Your task to perform on an android device: turn on wifi Image 0: 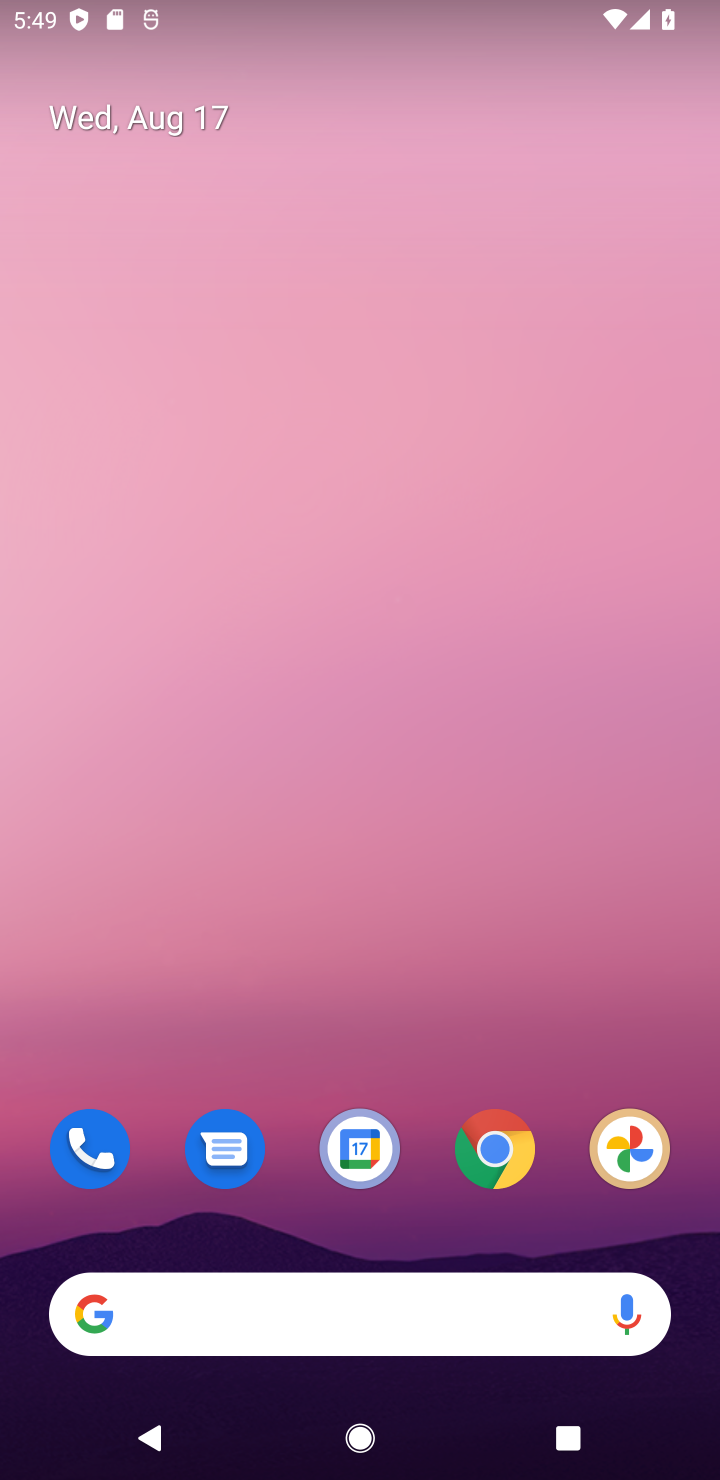
Step 0: drag from (413, 1057) to (426, 80)
Your task to perform on an android device: turn on wifi Image 1: 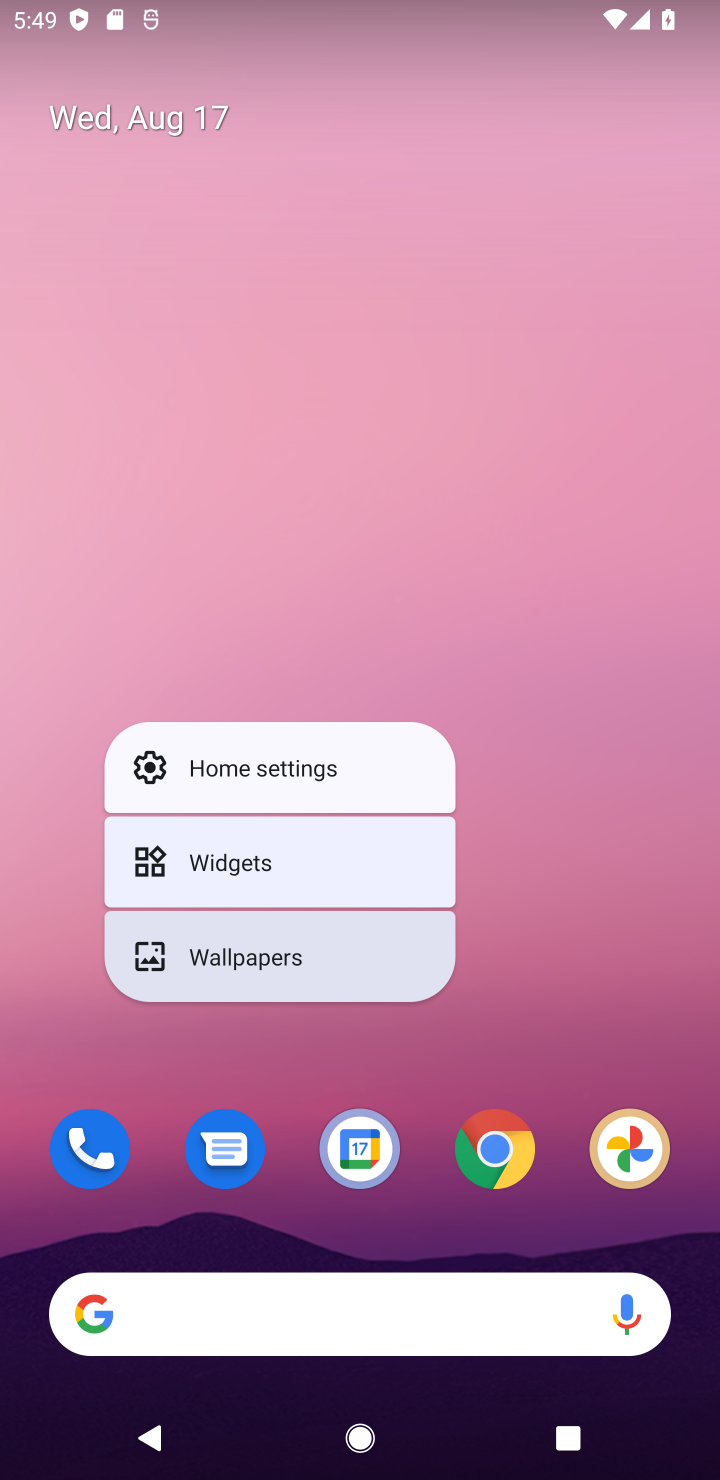
Step 1: click (440, 1220)
Your task to perform on an android device: turn on wifi Image 2: 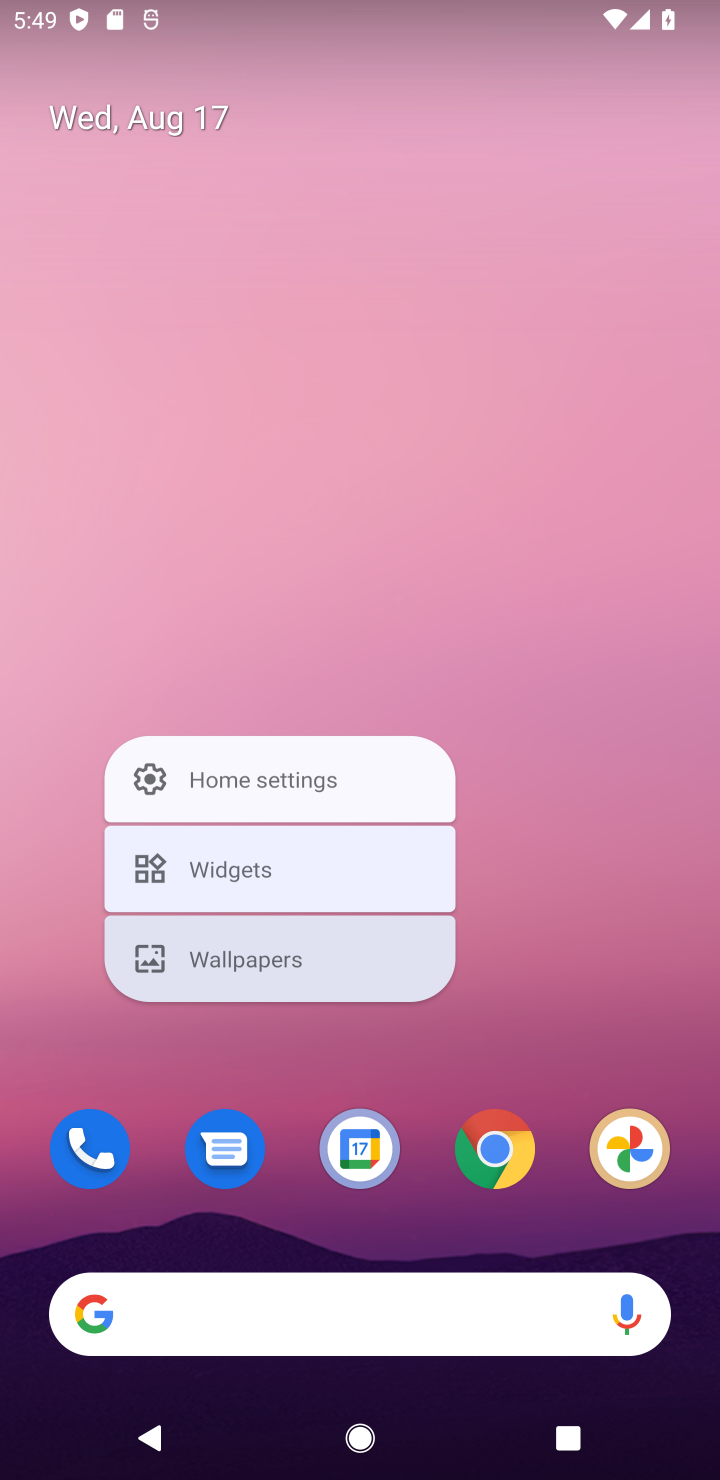
Step 2: drag from (440, 1220) to (362, 238)
Your task to perform on an android device: turn on wifi Image 3: 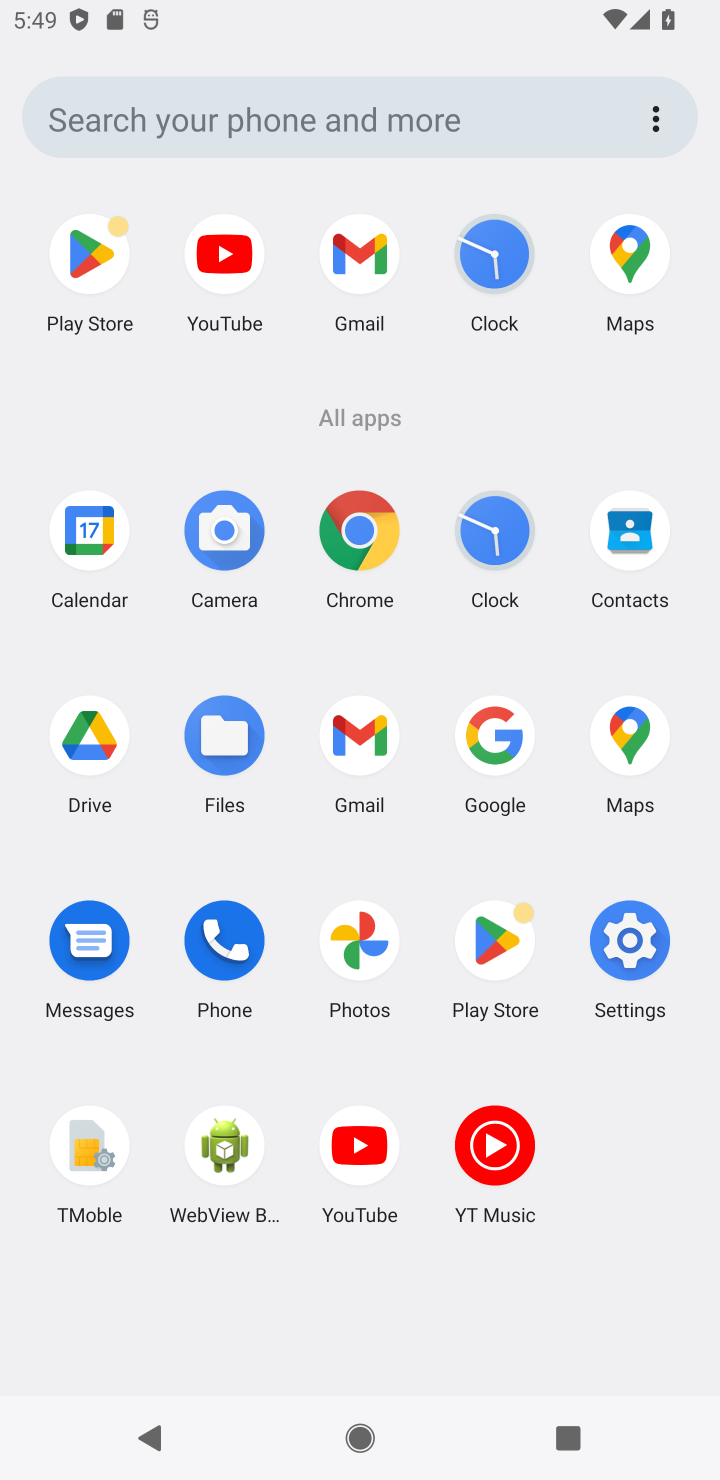
Step 3: click (632, 927)
Your task to perform on an android device: turn on wifi Image 4: 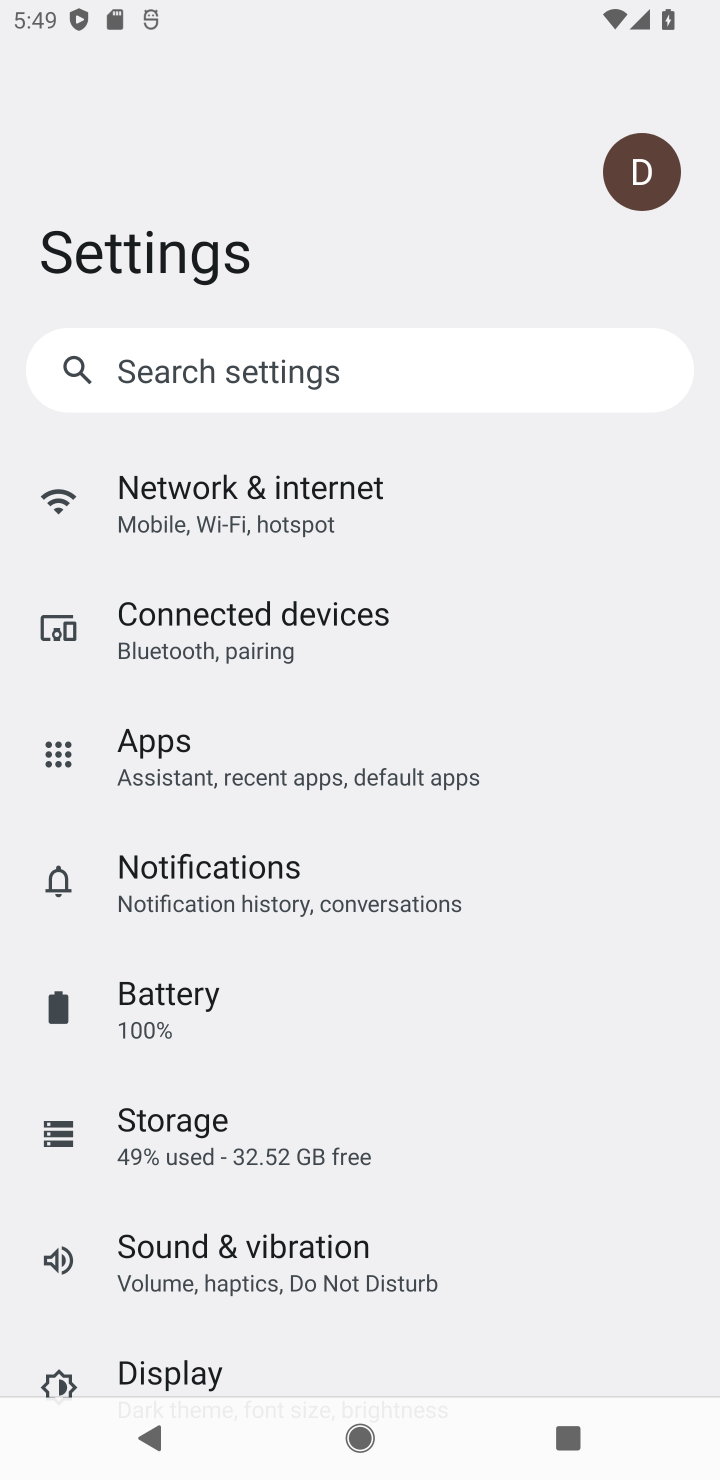
Step 4: click (282, 476)
Your task to perform on an android device: turn on wifi Image 5: 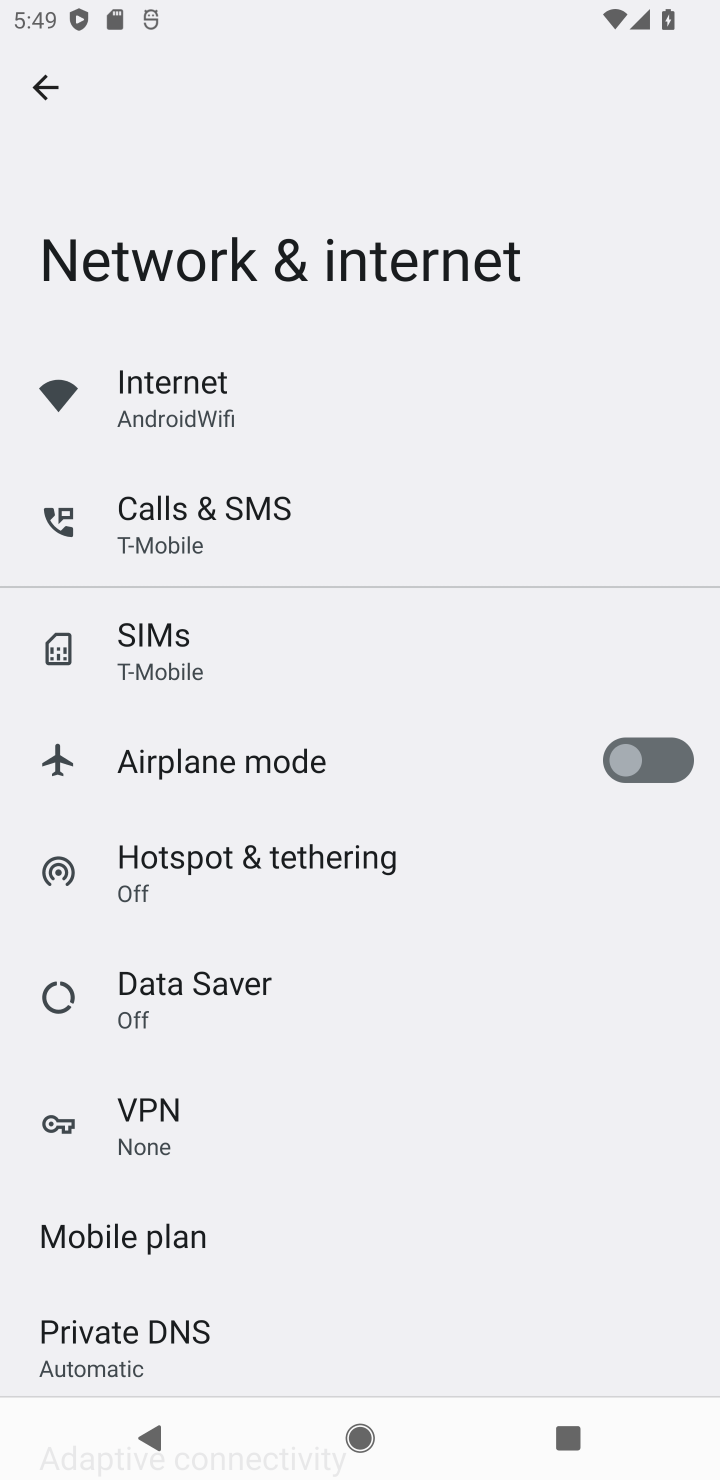
Step 5: click (160, 384)
Your task to perform on an android device: turn on wifi Image 6: 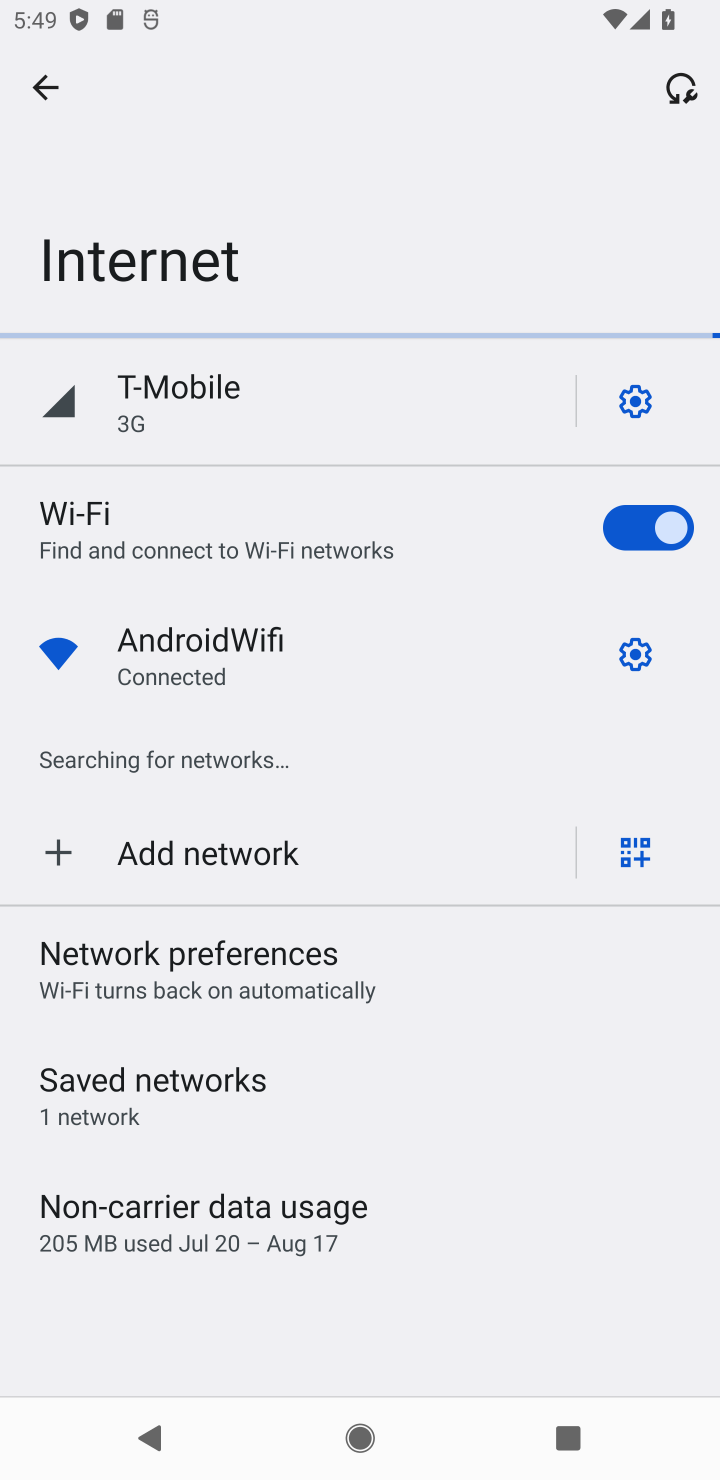
Step 6: task complete